Your task to perform on an android device: turn pop-ups on in chrome Image 0: 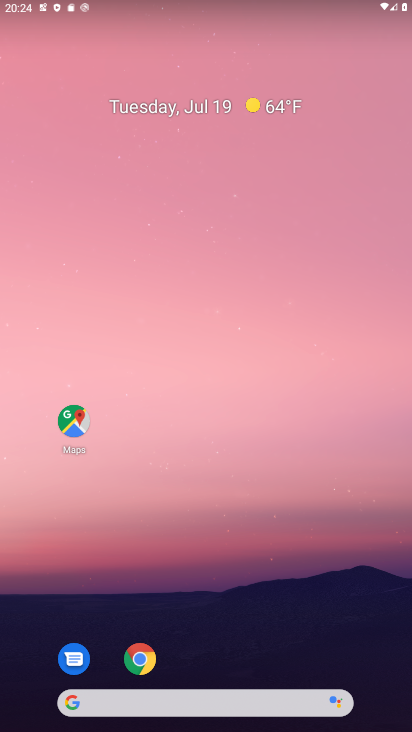
Step 0: click (130, 659)
Your task to perform on an android device: turn pop-ups on in chrome Image 1: 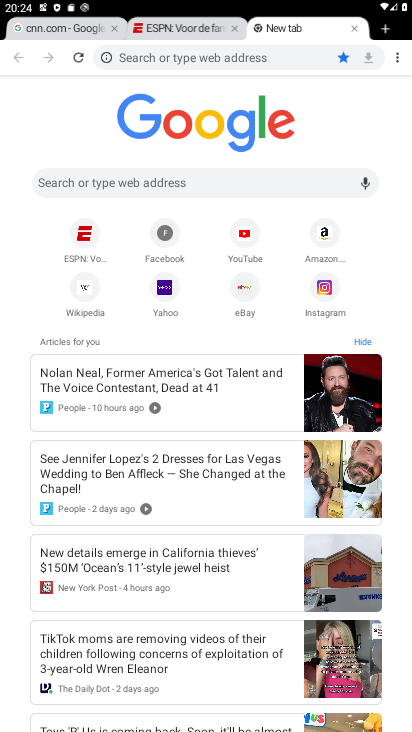
Step 1: click (394, 66)
Your task to perform on an android device: turn pop-ups on in chrome Image 2: 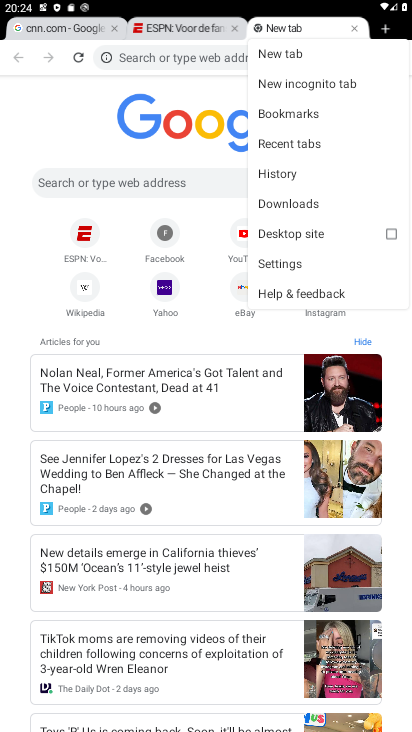
Step 2: click (288, 268)
Your task to perform on an android device: turn pop-ups on in chrome Image 3: 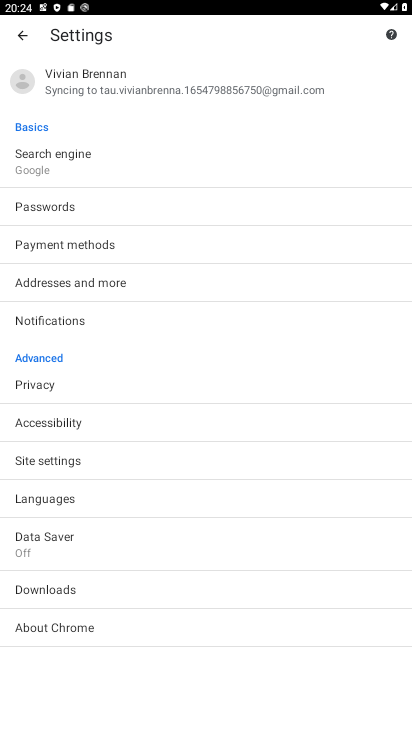
Step 3: click (110, 459)
Your task to perform on an android device: turn pop-ups on in chrome Image 4: 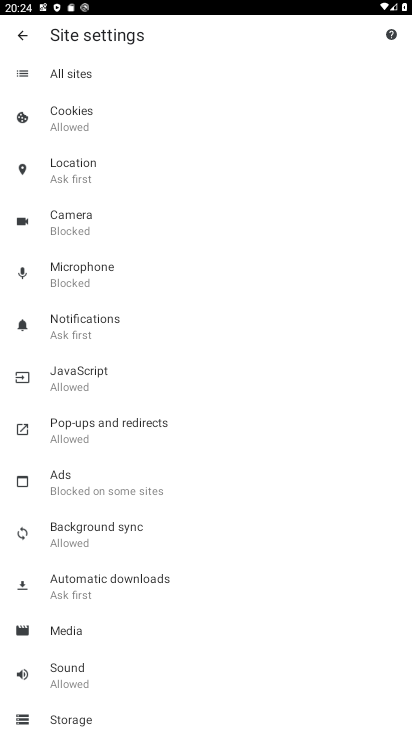
Step 4: click (119, 425)
Your task to perform on an android device: turn pop-ups on in chrome Image 5: 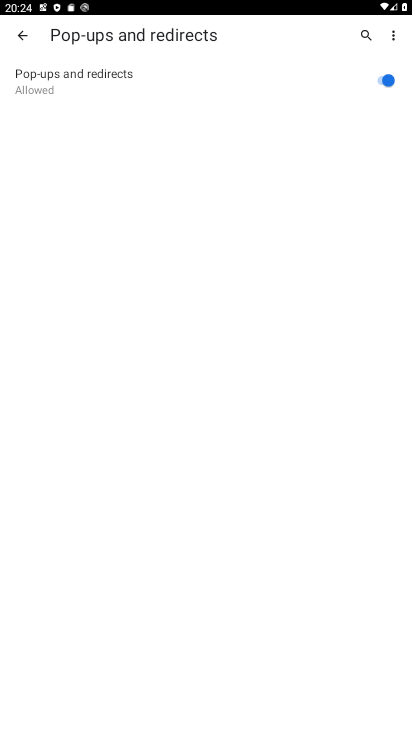
Step 5: task complete